Your task to perform on an android device: turn pop-ups off in chrome Image 0: 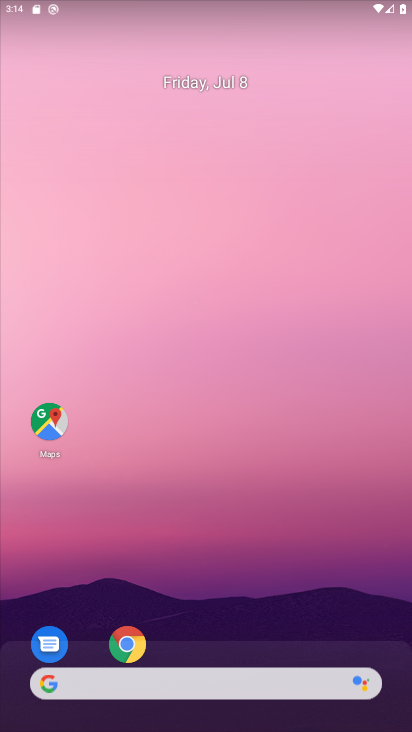
Step 0: drag from (234, 272) to (213, 72)
Your task to perform on an android device: turn pop-ups off in chrome Image 1: 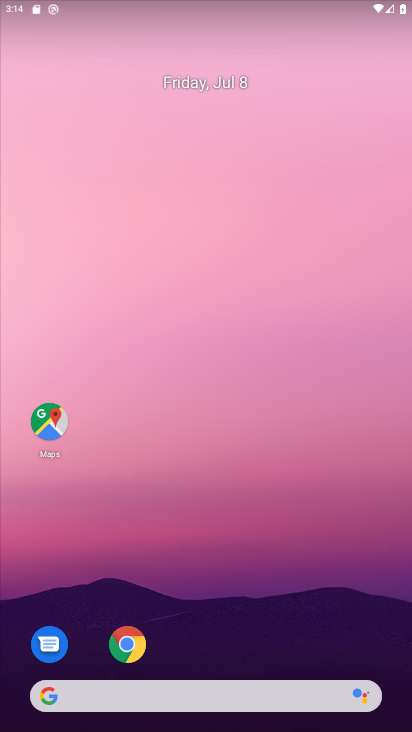
Step 1: drag from (138, 208) to (113, 153)
Your task to perform on an android device: turn pop-ups off in chrome Image 2: 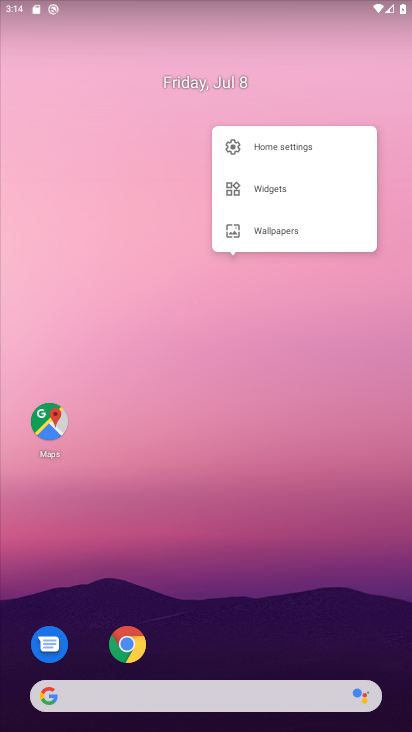
Step 2: click (173, 199)
Your task to perform on an android device: turn pop-ups off in chrome Image 3: 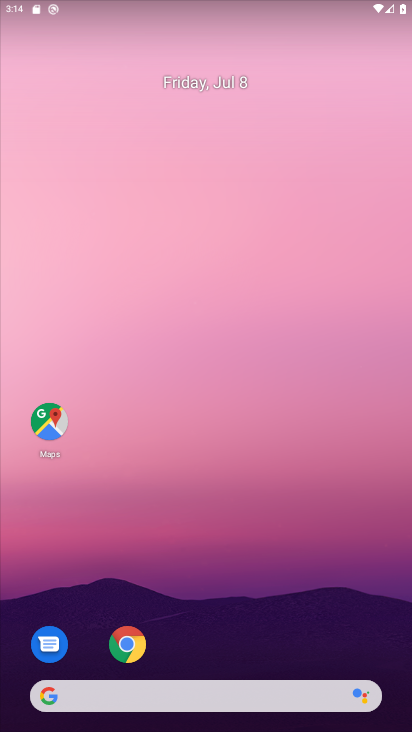
Step 3: drag from (235, 615) to (171, 139)
Your task to perform on an android device: turn pop-ups off in chrome Image 4: 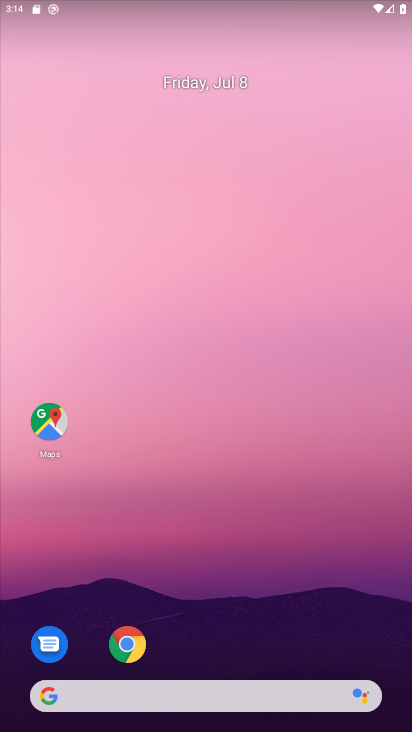
Step 4: drag from (234, 169) to (215, 35)
Your task to perform on an android device: turn pop-ups off in chrome Image 5: 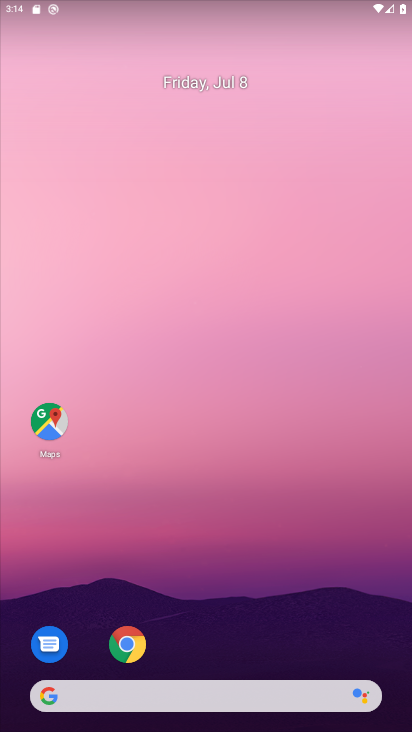
Step 5: drag from (256, 605) to (271, 306)
Your task to perform on an android device: turn pop-ups off in chrome Image 6: 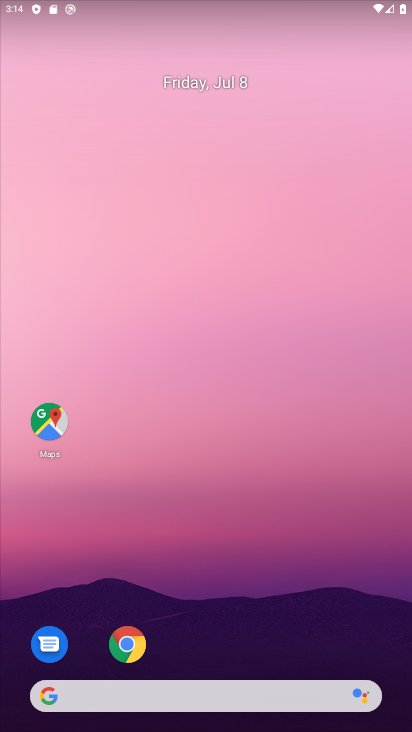
Step 6: drag from (248, 672) to (76, 143)
Your task to perform on an android device: turn pop-ups off in chrome Image 7: 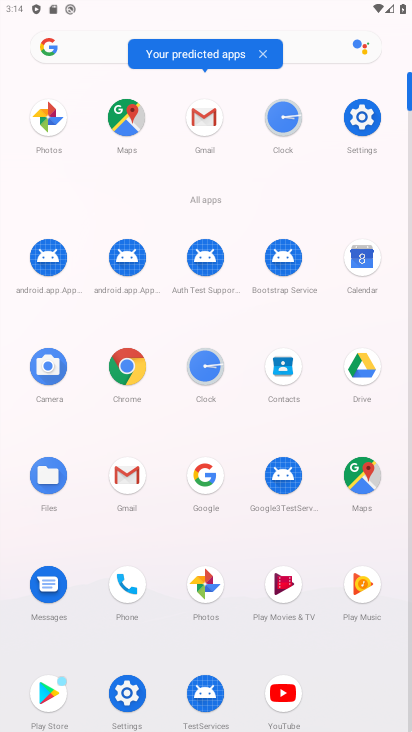
Step 7: click (122, 368)
Your task to perform on an android device: turn pop-ups off in chrome Image 8: 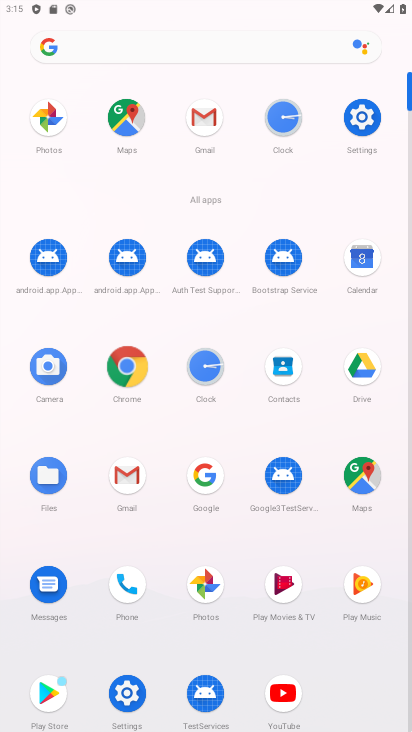
Step 8: click (122, 364)
Your task to perform on an android device: turn pop-ups off in chrome Image 9: 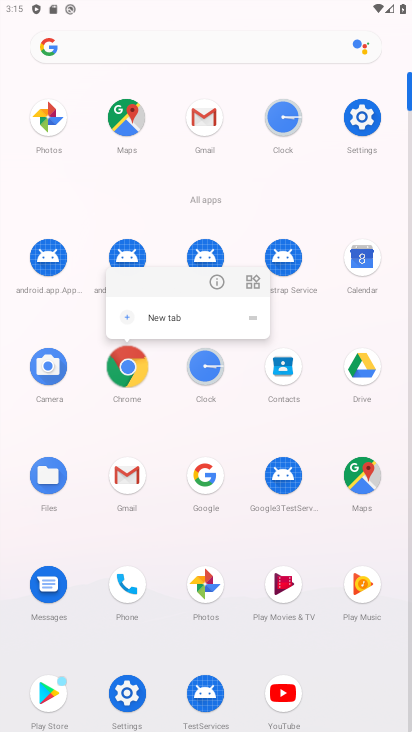
Step 9: click (122, 364)
Your task to perform on an android device: turn pop-ups off in chrome Image 10: 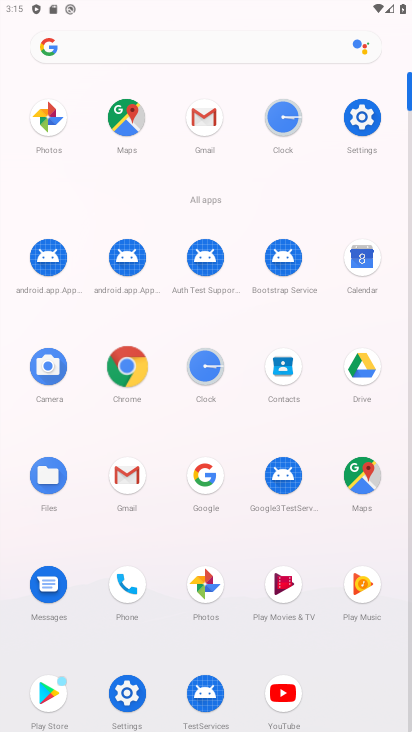
Step 10: click (126, 360)
Your task to perform on an android device: turn pop-ups off in chrome Image 11: 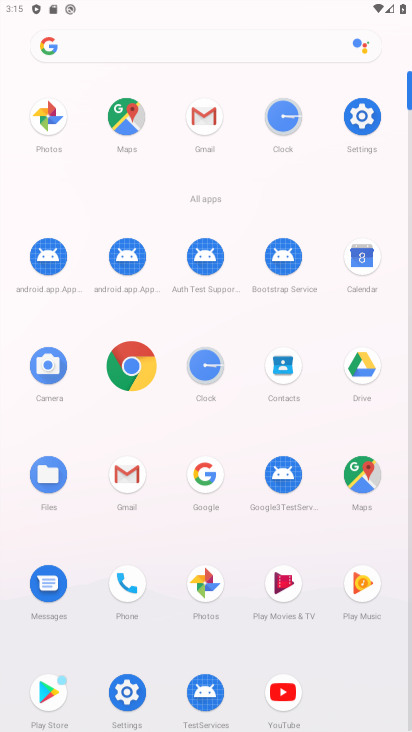
Step 11: click (126, 359)
Your task to perform on an android device: turn pop-ups off in chrome Image 12: 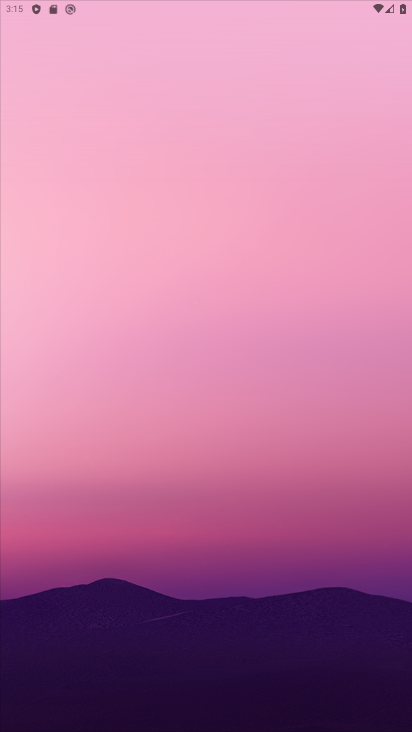
Step 12: click (129, 358)
Your task to perform on an android device: turn pop-ups off in chrome Image 13: 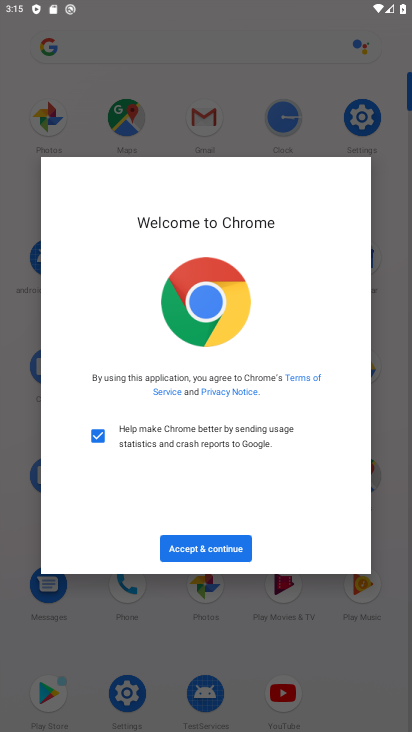
Step 13: click (216, 540)
Your task to perform on an android device: turn pop-ups off in chrome Image 14: 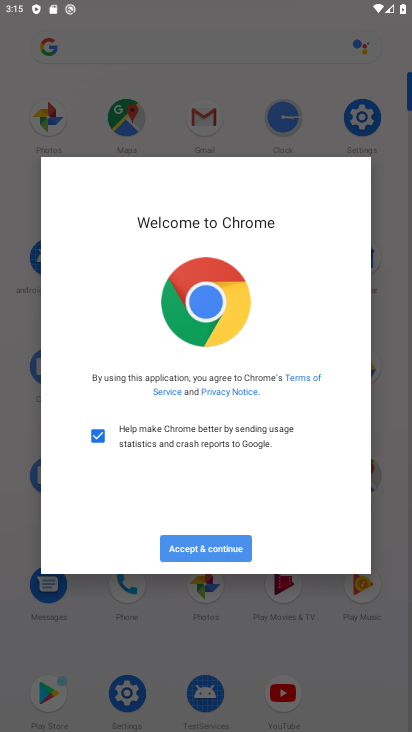
Step 14: click (222, 527)
Your task to perform on an android device: turn pop-ups off in chrome Image 15: 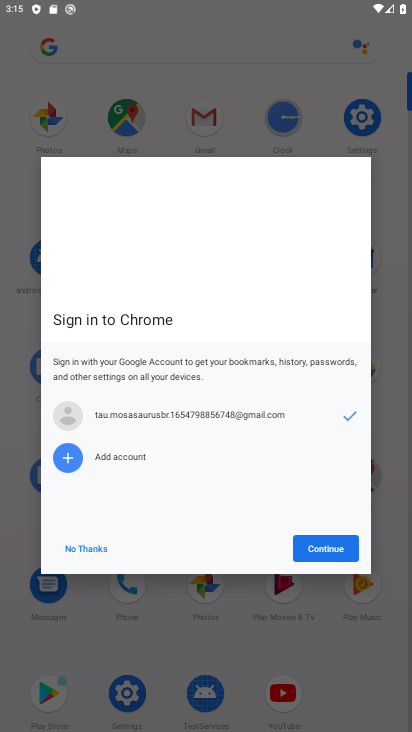
Step 15: click (317, 566)
Your task to perform on an android device: turn pop-ups off in chrome Image 16: 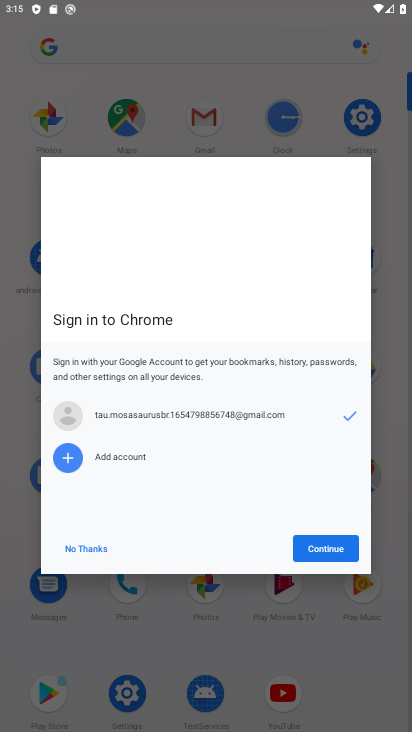
Step 16: click (328, 552)
Your task to perform on an android device: turn pop-ups off in chrome Image 17: 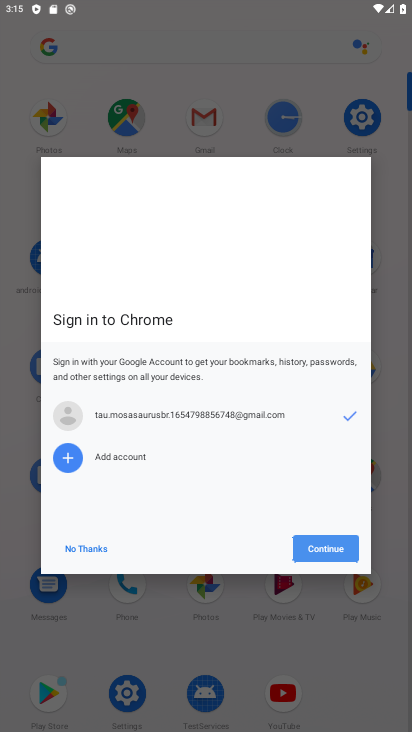
Step 17: click (328, 552)
Your task to perform on an android device: turn pop-ups off in chrome Image 18: 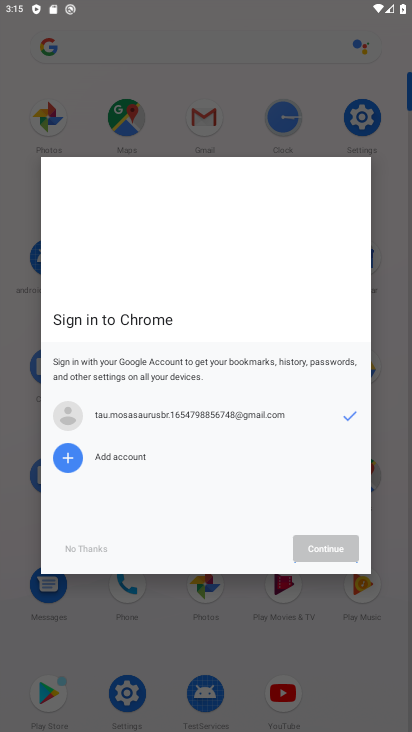
Step 18: click (328, 552)
Your task to perform on an android device: turn pop-ups off in chrome Image 19: 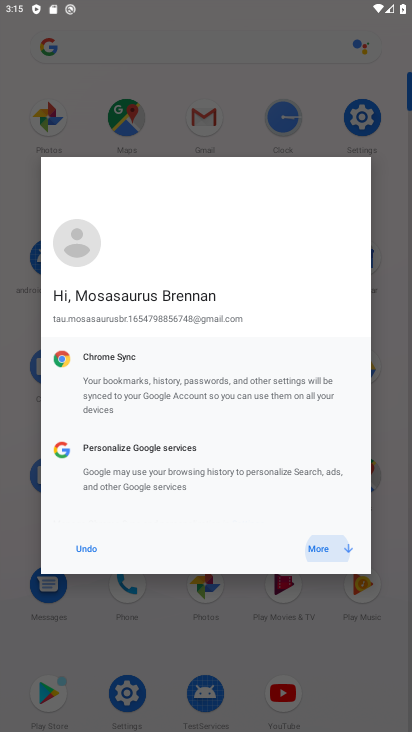
Step 19: click (328, 552)
Your task to perform on an android device: turn pop-ups off in chrome Image 20: 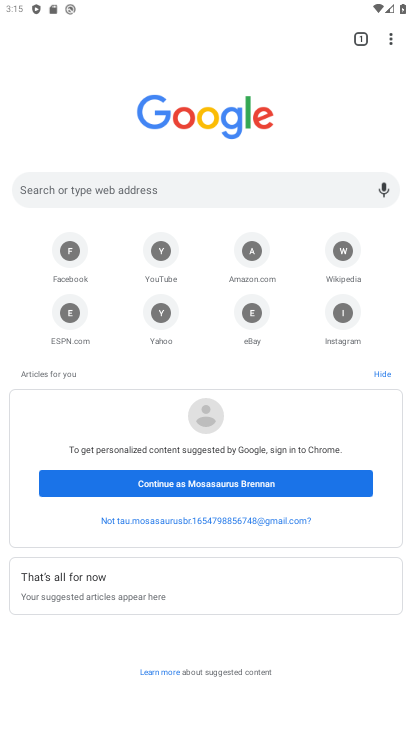
Step 20: task complete